Your task to perform on an android device: Open Chrome and go to the settings page Image 0: 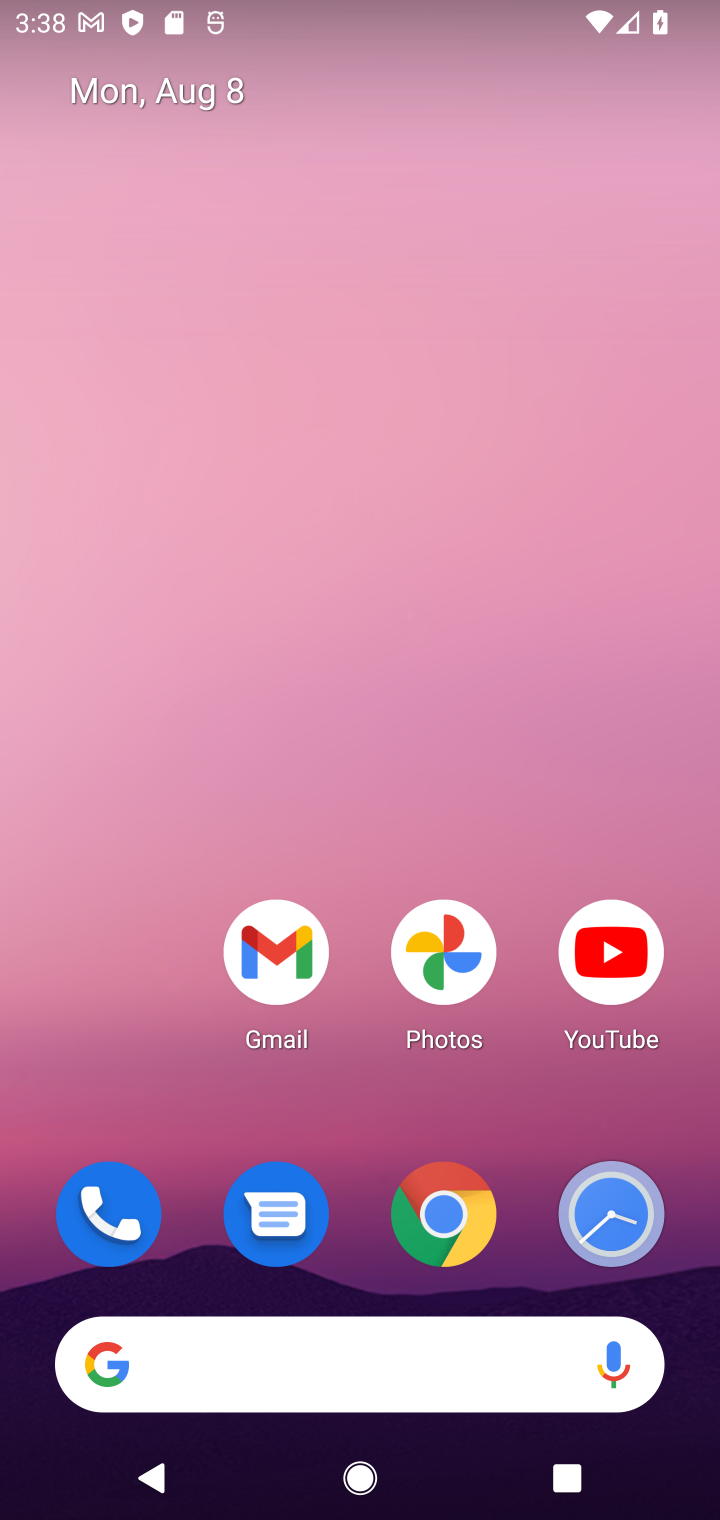
Step 0: press home button
Your task to perform on an android device: Open Chrome and go to the settings page Image 1: 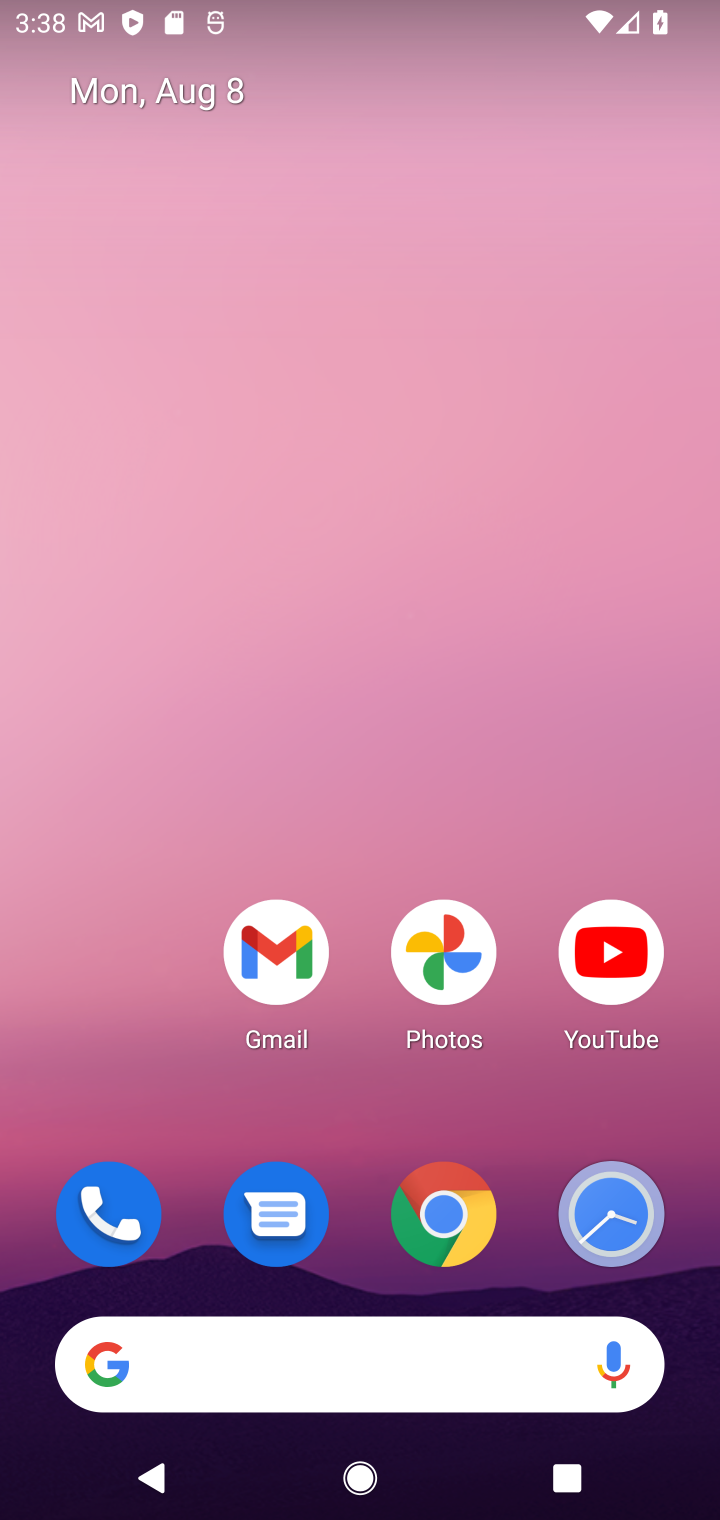
Step 1: click (451, 1212)
Your task to perform on an android device: Open Chrome and go to the settings page Image 2: 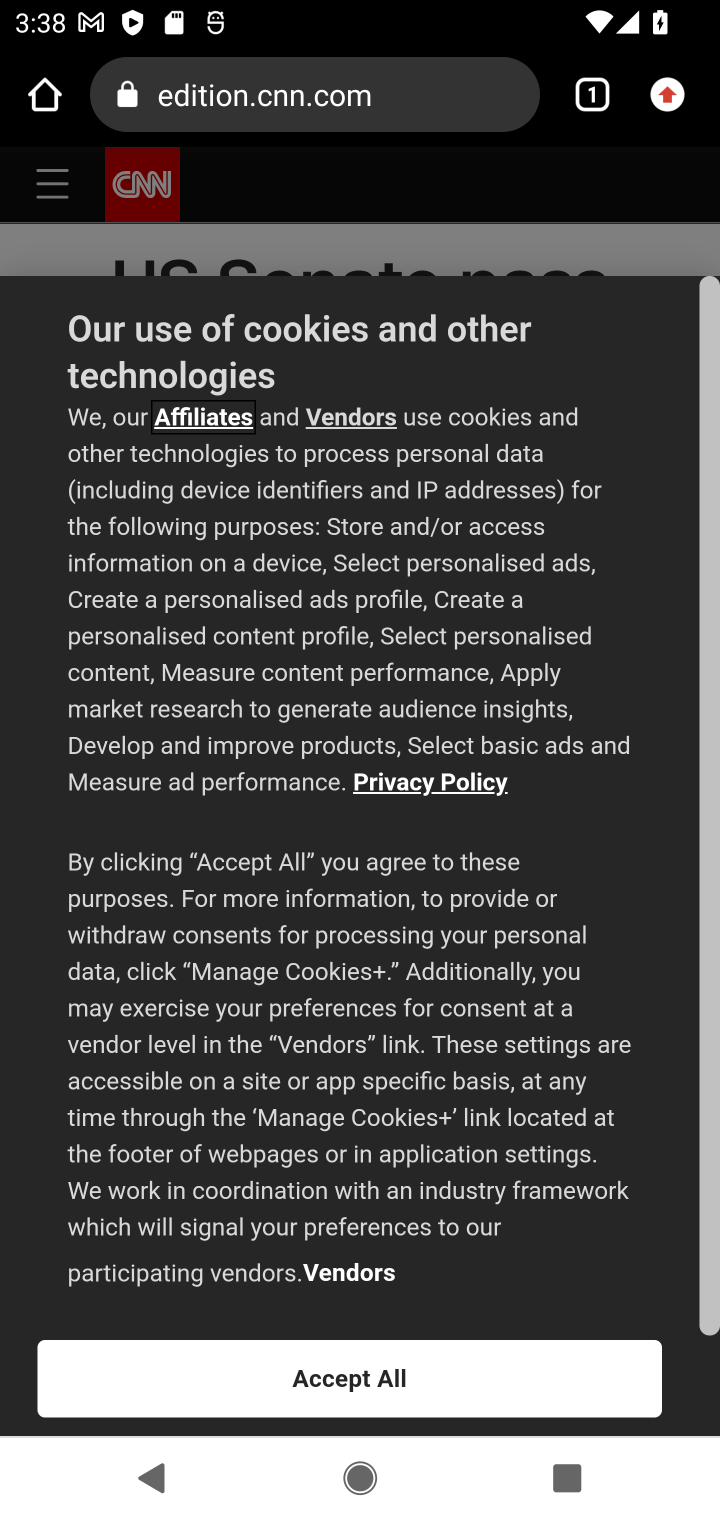
Step 2: task complete